Your task to perform on an android device: Open ESPN.com Image 0: 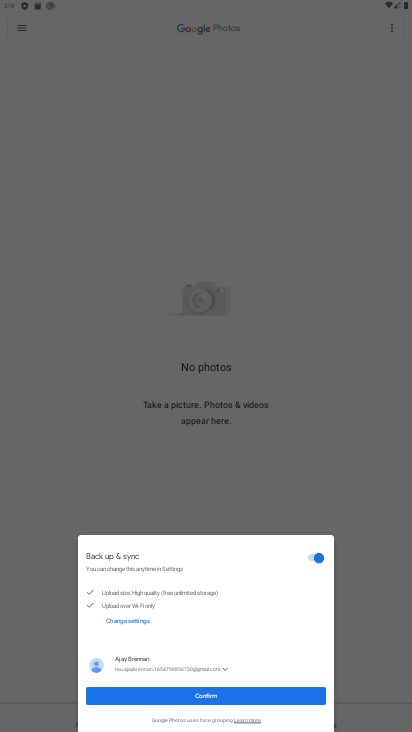
Step 0: press home button
Your task to perform on an android device: Open ESPN.com Image 1: 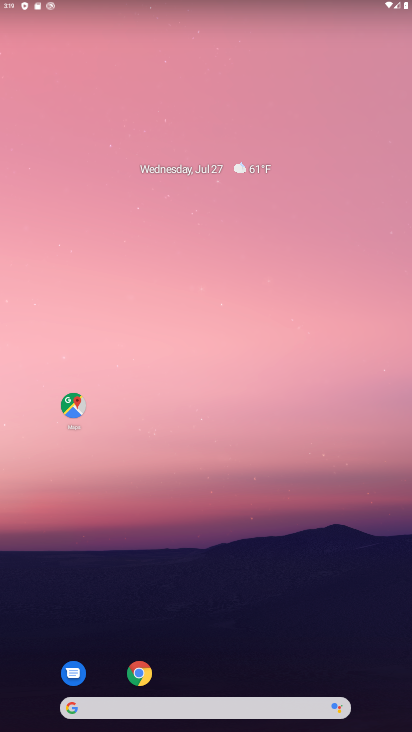
Step 1: click (144, 672)
Your task to perform on an android device: Open ESPN.com Image 2: 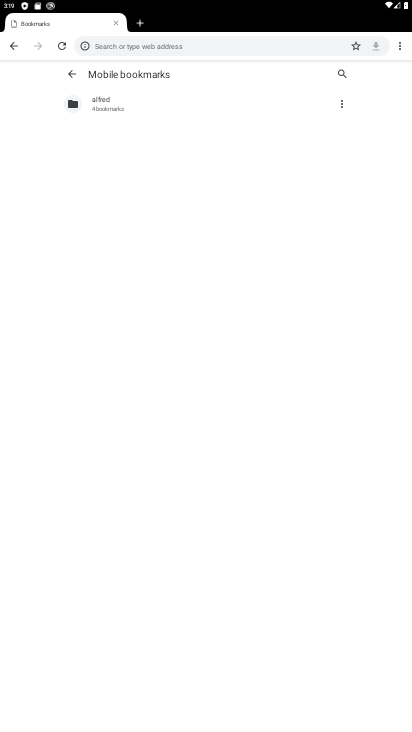
Step 2: click (137, 43)
Your task to perform on an android device: Open ESPN.com Image 3: 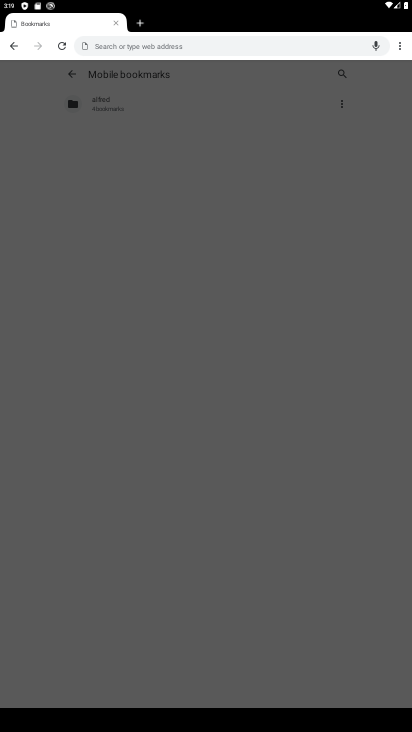
Step 3: type "espn.com"
Your task to perform on an android device: Open ESPN.com Image 4: 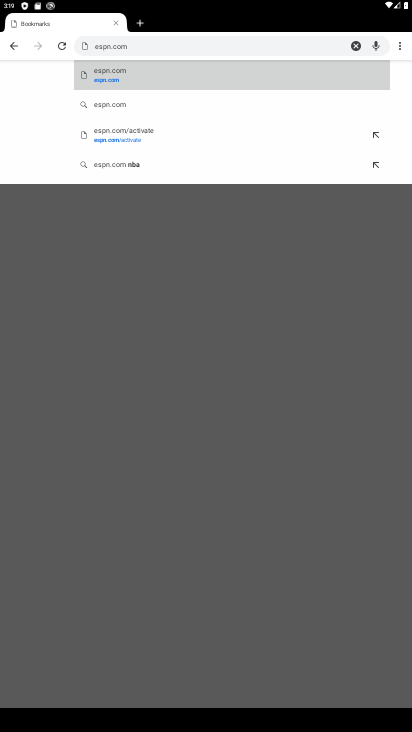
Step 4: click (136, 76)
Your task to perform on an android device: Open ESPN.com Image 5: 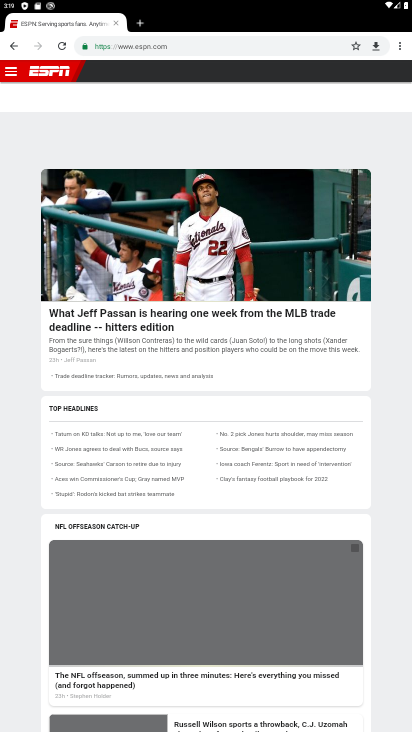
Step 5: task complete